Your task to perform on an android device: Open ESPN.com Image 0: 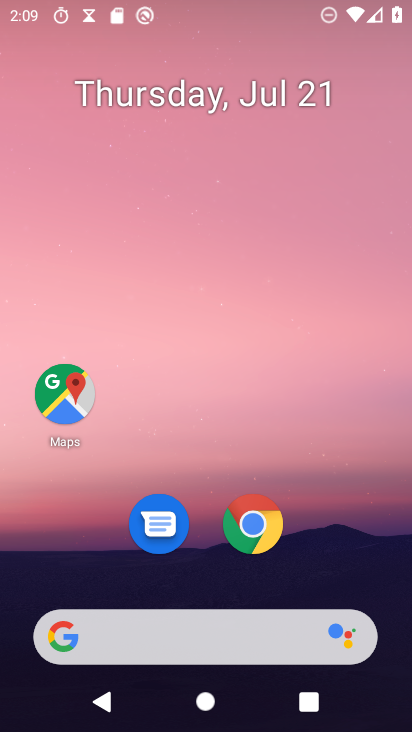
Step 0: press home button
Your task to perform on an android device: Open ESPN.com Image 1: 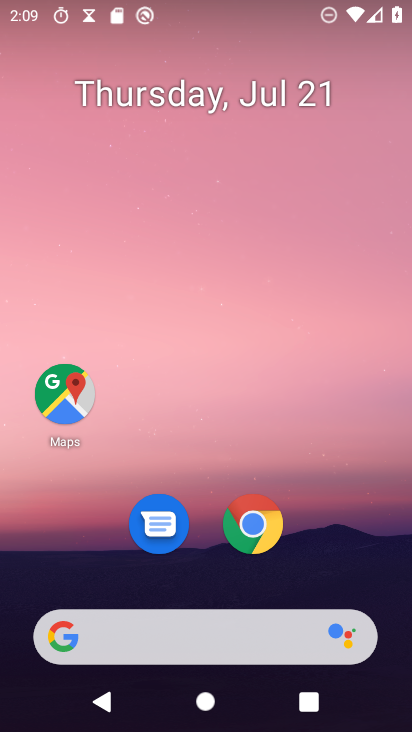
Step 1: click (243, 534)
Your task to perform on an android device: Open ESPN.com Image 2: 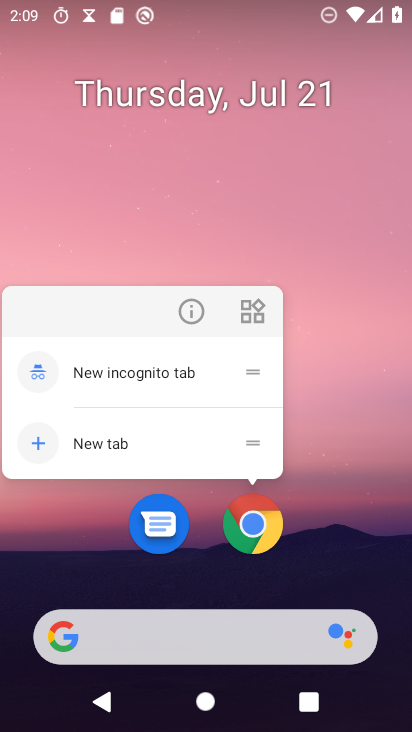
Step 2: click (251, 525)
Your task to perform on an android device: Open ESPN.com Image 3: 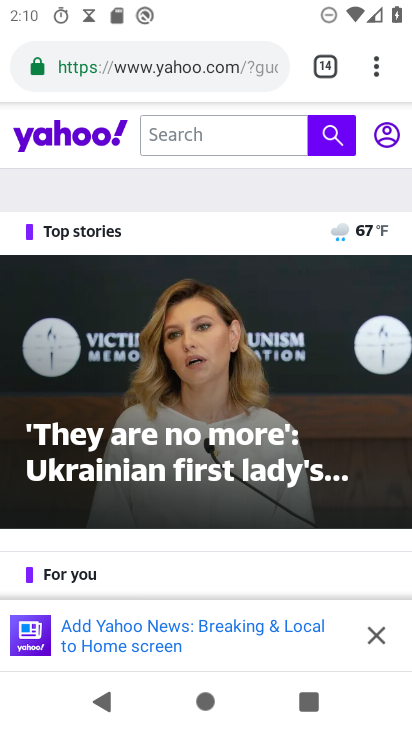
Step 3: drag from (375, 65) to (211, 124)
Your task to perform on an android device: Open ESPN.com Image 4: 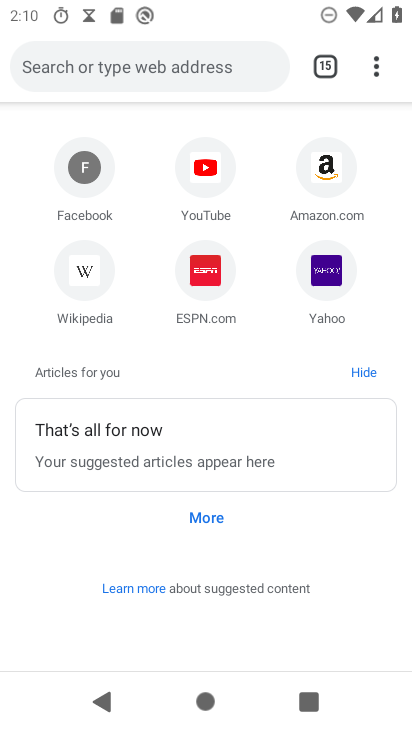
Step 4: click (213, 282)
Your task to perform on an android device: Open ESPN.com Image 5: 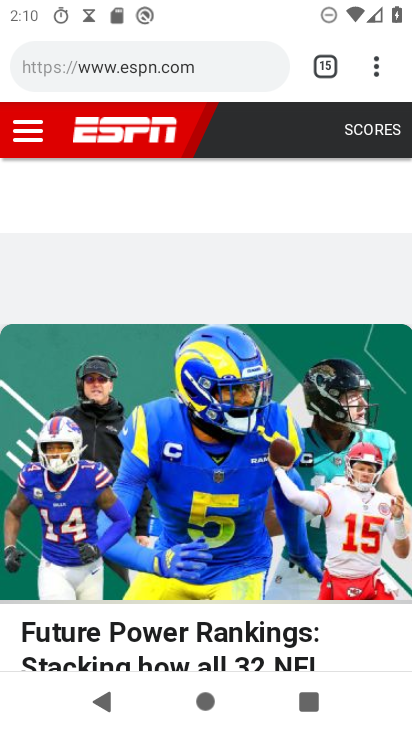
Step 5: task complete